Your task to perform on an android device: Open battery settings Image 0: 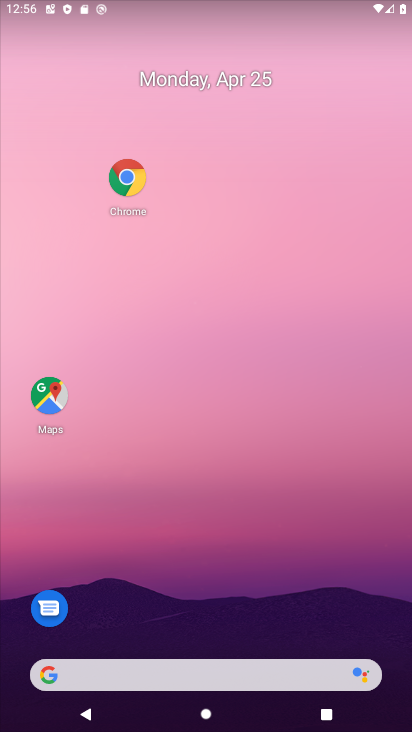
Step 0: drag from (199, 567) to (266, 116)
Your task to perform on an android device: Open battery settings Image 1: 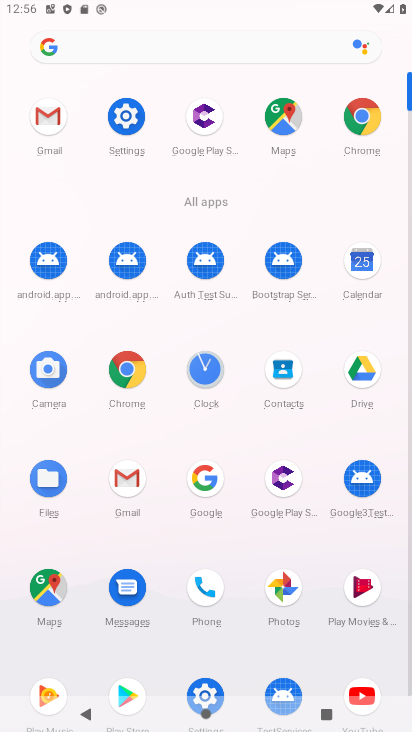
Step 1: click (133, 125)
Your task to perform on an android device: Open battery settings Image 2: 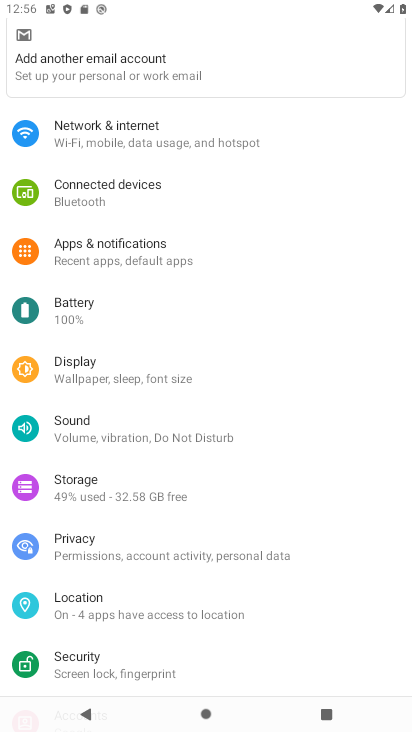
Step 2: drag from (249, 586) to (279, 183)
Your task to perform on an android device: Open battery settings Image 3: 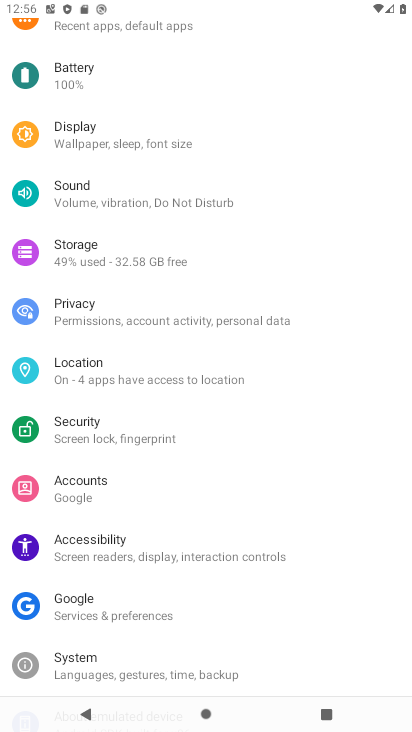
Step 3: drag from (203, 517) to (295, 153)
Your task to perform on an android device: Open battery settings Image 4: 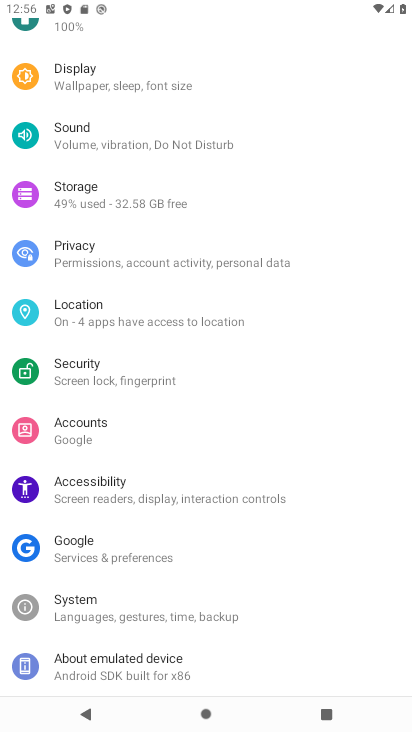
Step 4: drag from (272, 188) to (280, 516)
Your task to perform on an android device: Open battery settings Image 5: 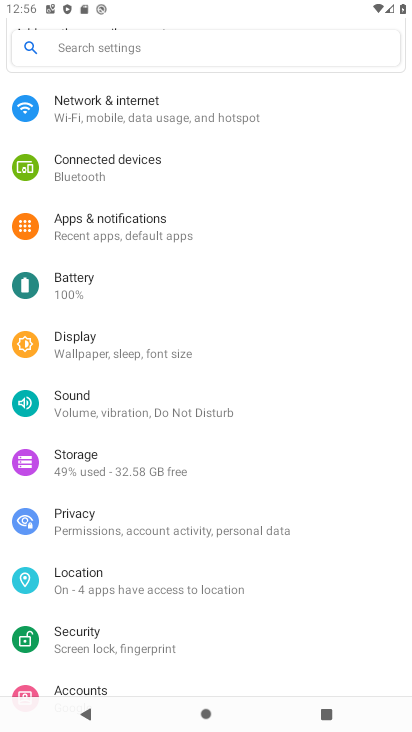
Step 5: click (59, 281)
Your task to perform on an android device: Open battery settings Image 6: 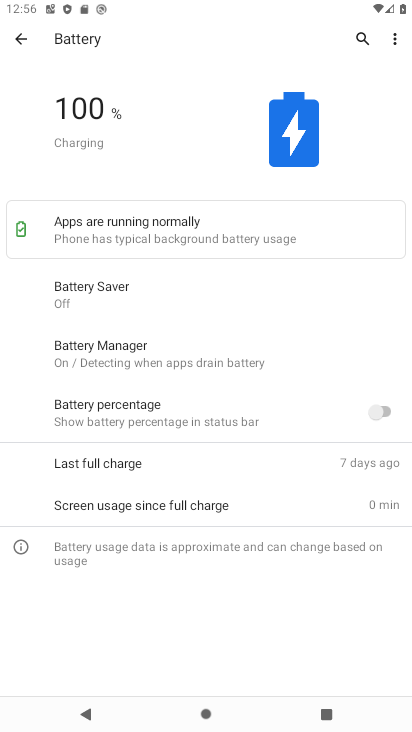
Step 6: task complete